Your task to perform on an android device: turn on wifi Image 0: 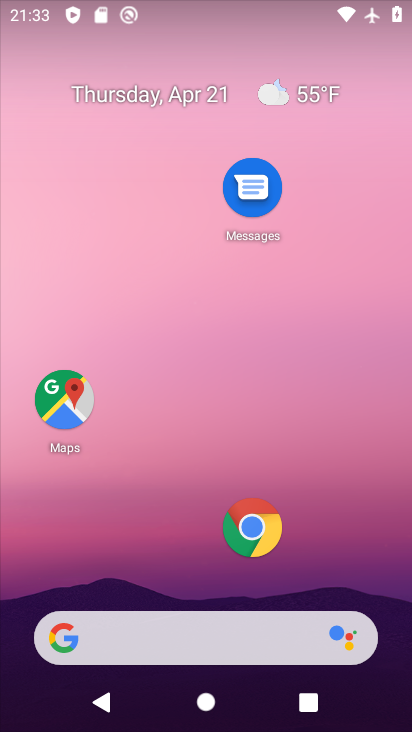
Step 0: drag from (182, 591) to (293, 76)
Your task to perform on an android device: turn on wifi Image 1: 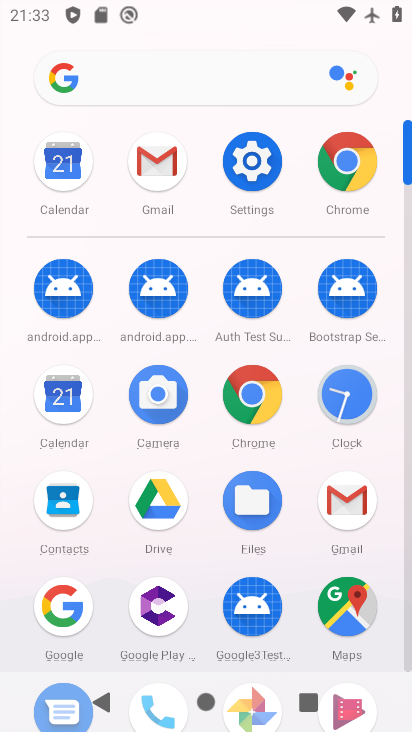
Step 1: click (262, 166)
Your task to perform on an android device: turn on wifi Image 2: 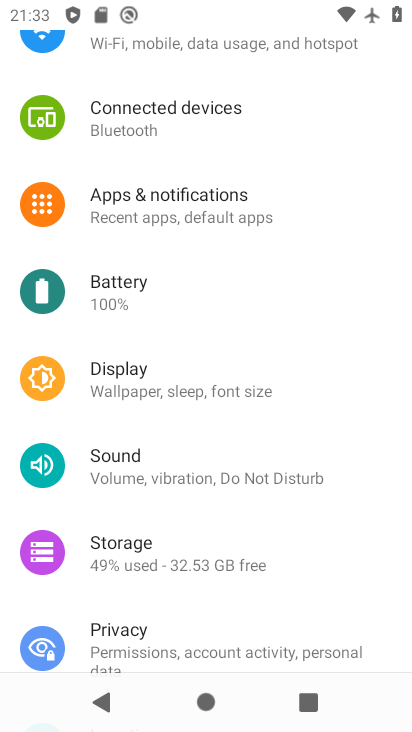
Step 2: drag from (296, 99) to (225, 579)
Your task to perform on an android device: turn on wifi Image 3: 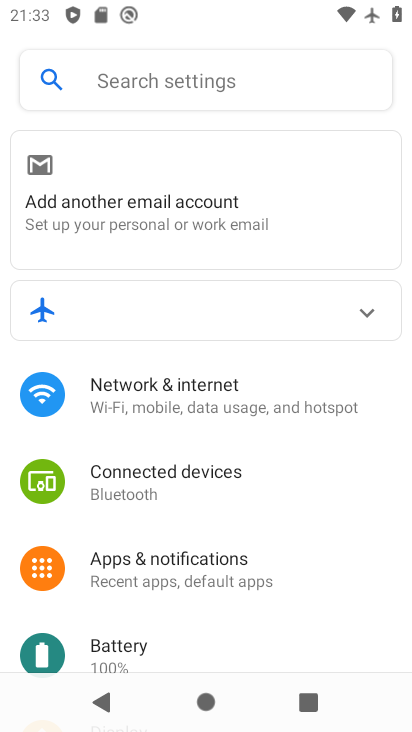
Step 3: click (209, 405)
Your task to perform on an android device: turn on wifi Image 4: 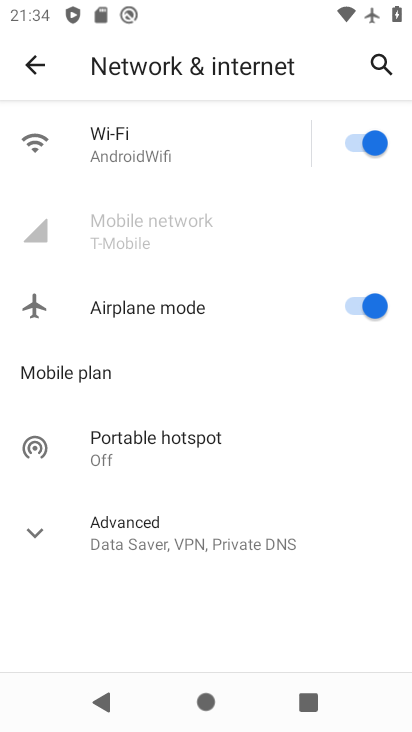
Step 4: task complete